Your task to perform on an android device: set default search engine in the chrome app Image 0: 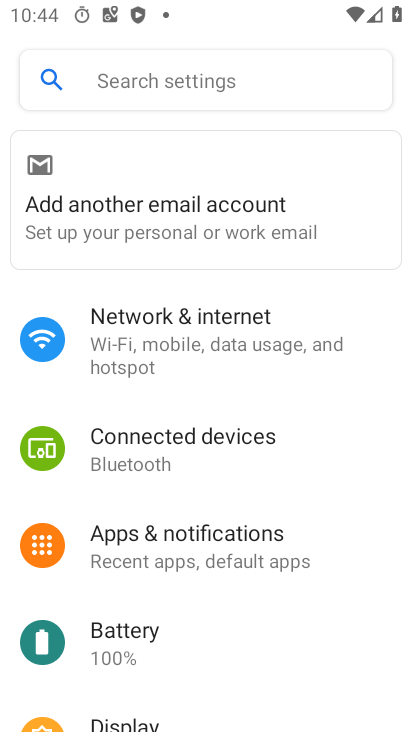
Step 0: press back button
Your task to perform on an android device: set default search engine in the chrome app Image 1: 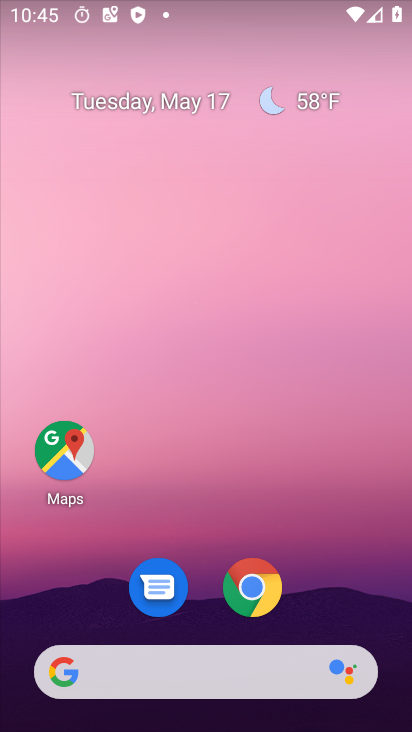
Step 1: click (254, 583)
Your task to perform on an android device: set default search engine in the chrome app Image 2: 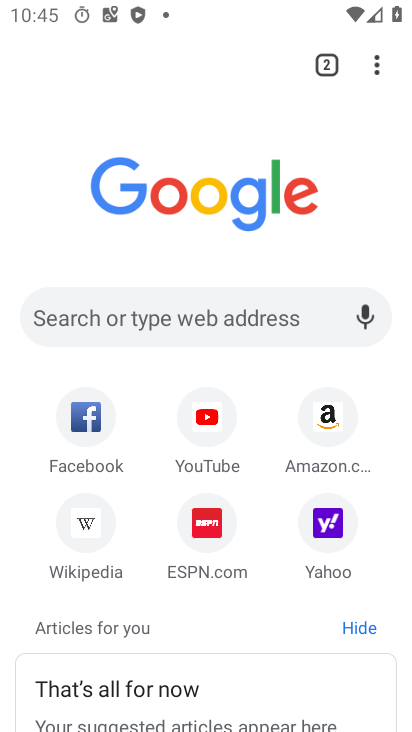
Step 2: click (378, 63)
Your task to perform on an android device: set default search engine in the chrome app Image 3: 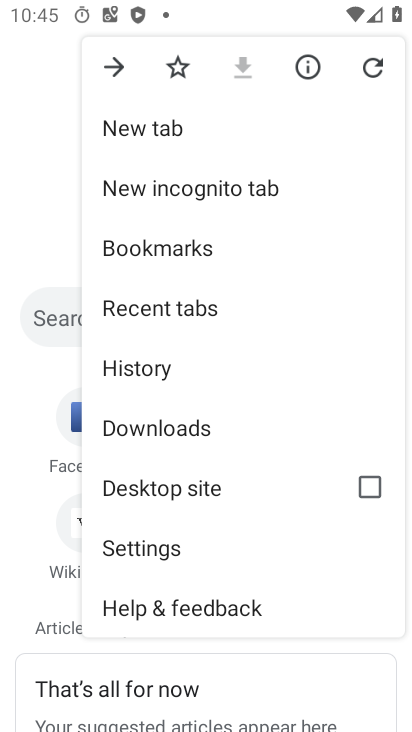
Step 3: click (148, 550)
Your task to perform on an android device: set default search engine in the chrome app Image 4: 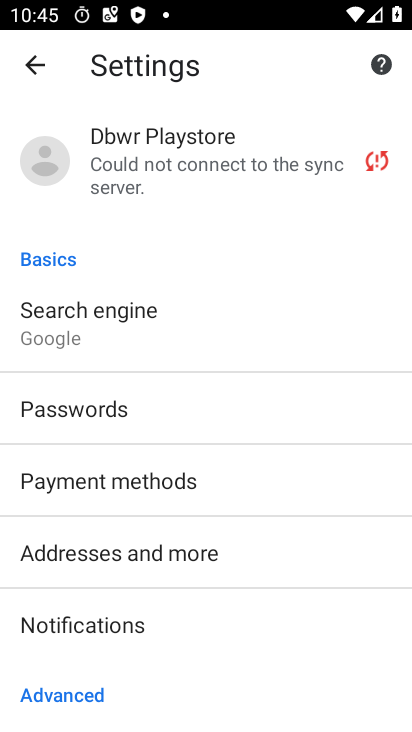
Step 4: click (94, 321)
Your task to perform on an android device: set default search engine in the chrome app Image 5: 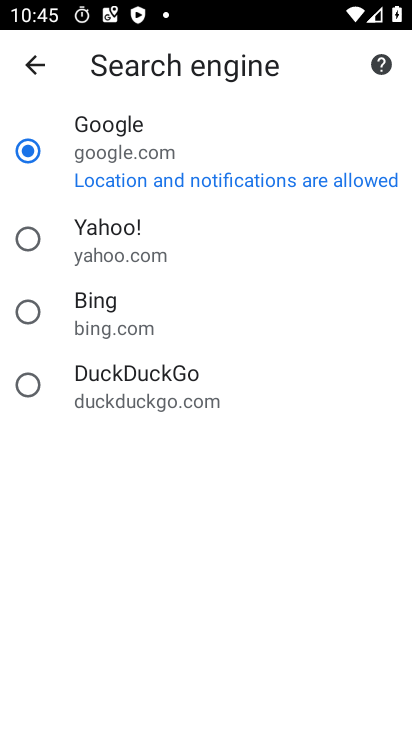
Step 5: click (27, 310)
Your task to perform on an android device: set default search engine in the chrome app Image 6: 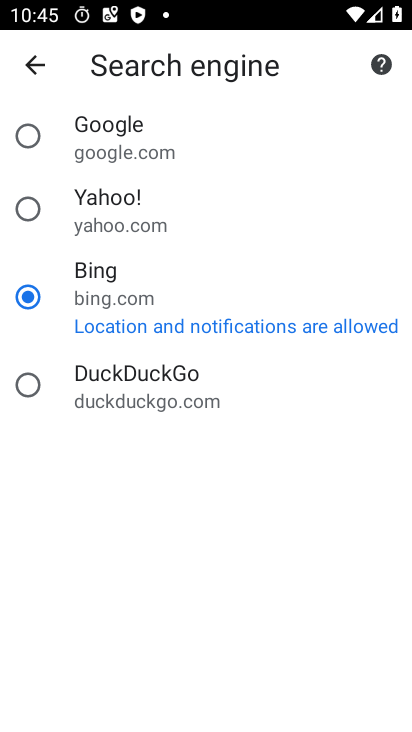
Step 6: task complete